Your task to perform on an android device: snooze an email in the gmail app Image 0: 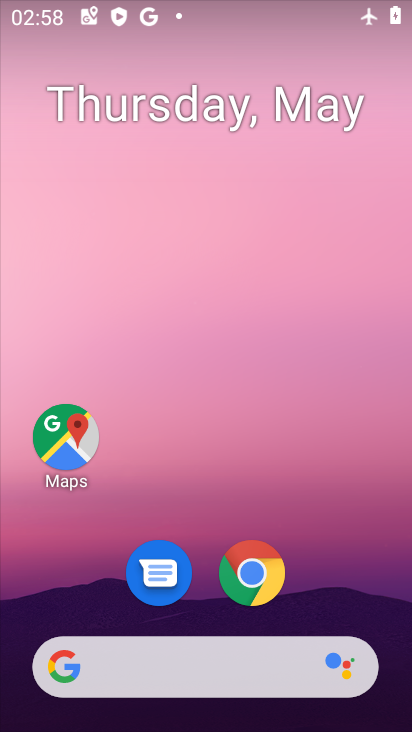
Step 0: drag from (296, 535) to (297, 259)
Your task to perform on an android device: snooze an email in the gmail app Image 1: 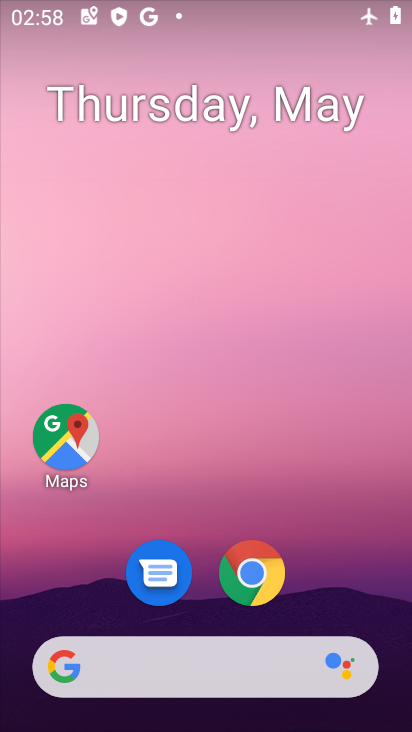
Step 1: drag from (321, 558) to (297, 247)
Your task to perform on an android device: snooze an email in the gmail app Image 2: 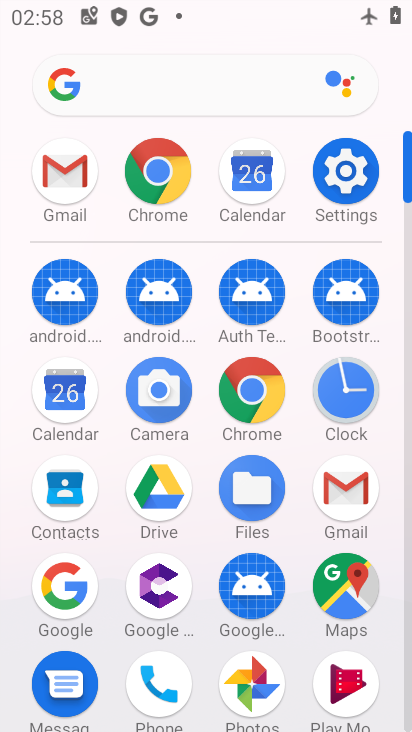
Step 2: click (337, 490)
Your task to perform on an android device: snooze an email in the gmail app Image 3: 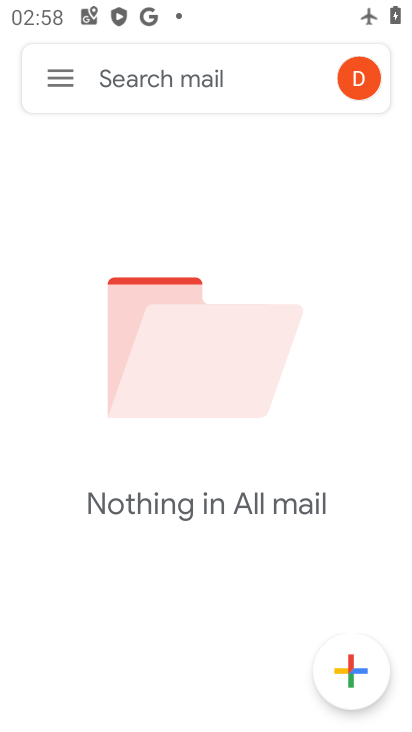
Step 3: click (64, 70)
Your task to perform on an android device: snooze an email in the gmail app Image 4: 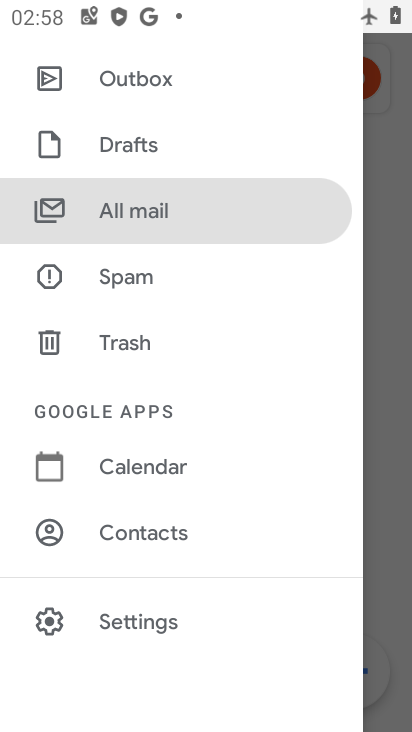
Step 4: drag from (191, 142) to (193, 496)
Your task to perform on an android device: snooze an email in the gmail app Image 5: 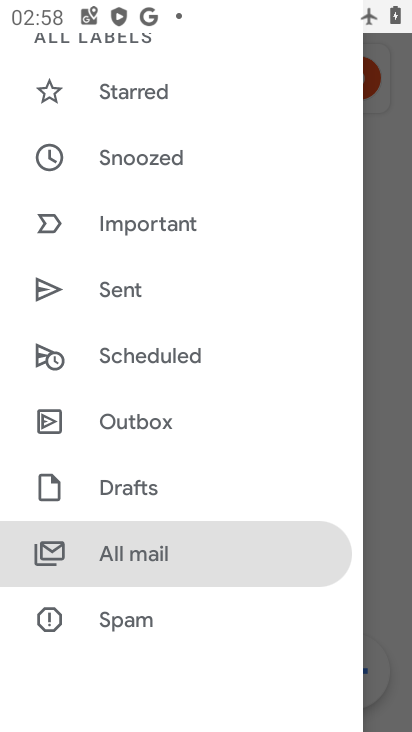
Step 5: click (162, 157)
Your task to perform on an android device: snooze an email in the gmail app Image 6: 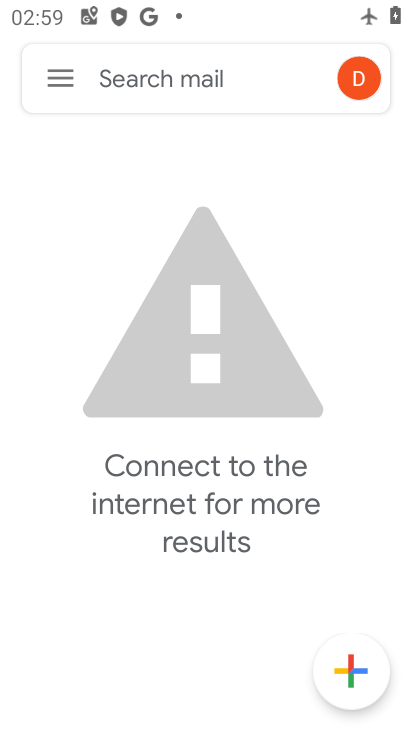
Step 6: click (56, 80)
Your task to perform on an android device: snooze an email in the gmail app Image 7: 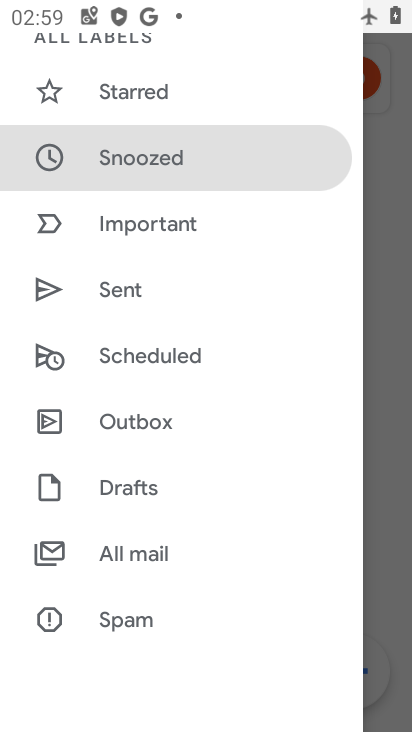
Step 7: task complete